Your task to perform on an android device: open device folders in google photos Image 0: 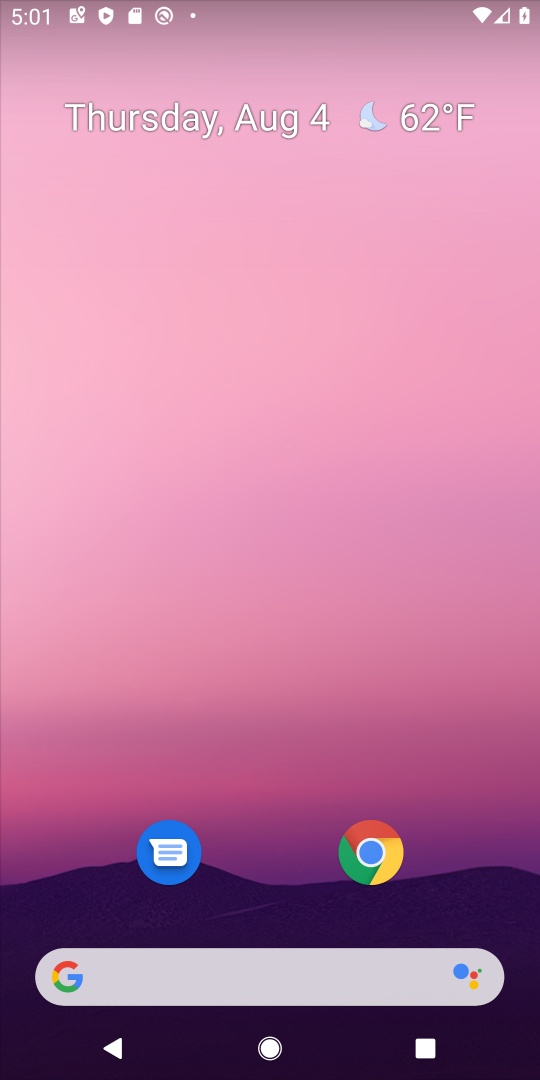
Step 0: drag from (281, 899) to (279, 164)
Your task to perform on an android device: open device folders in google photos Image 1: 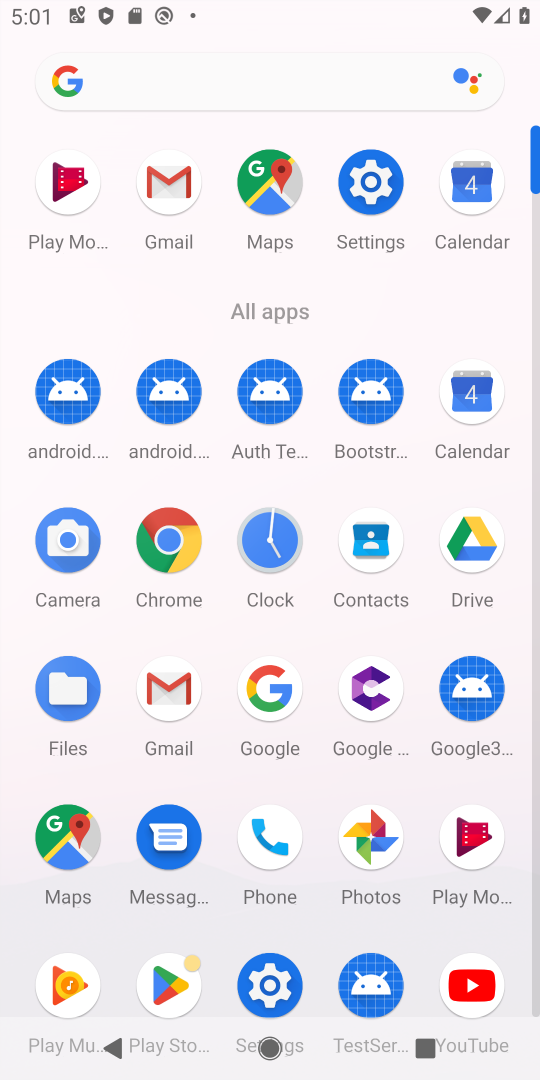
Step 1: click (349, 838)
Your task to perform on an android device: open device folders in google photos Image 2: 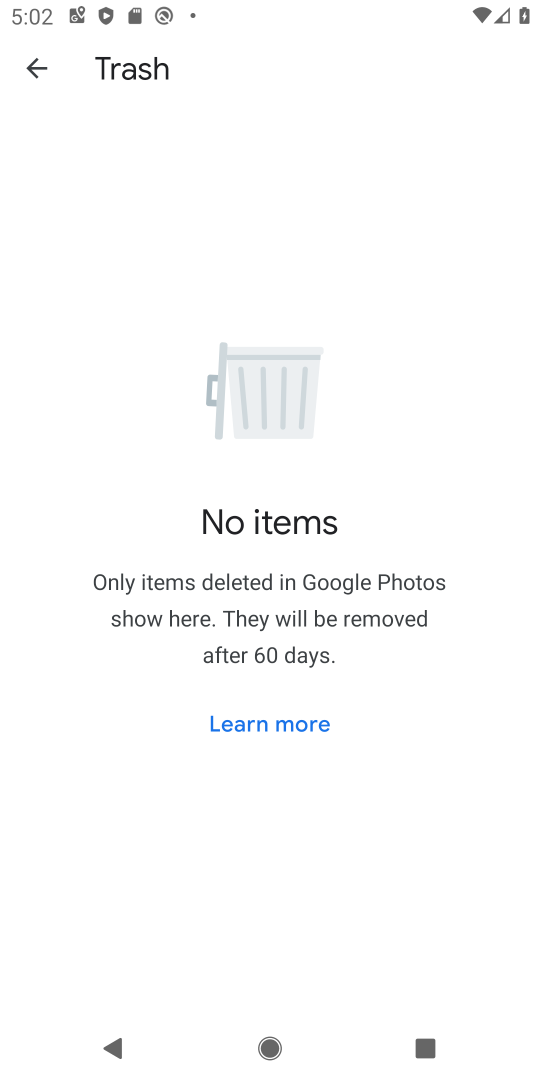
Step 2: click (45, 68)
Your task to perform on an android device: open device folders in google photos Image 3: 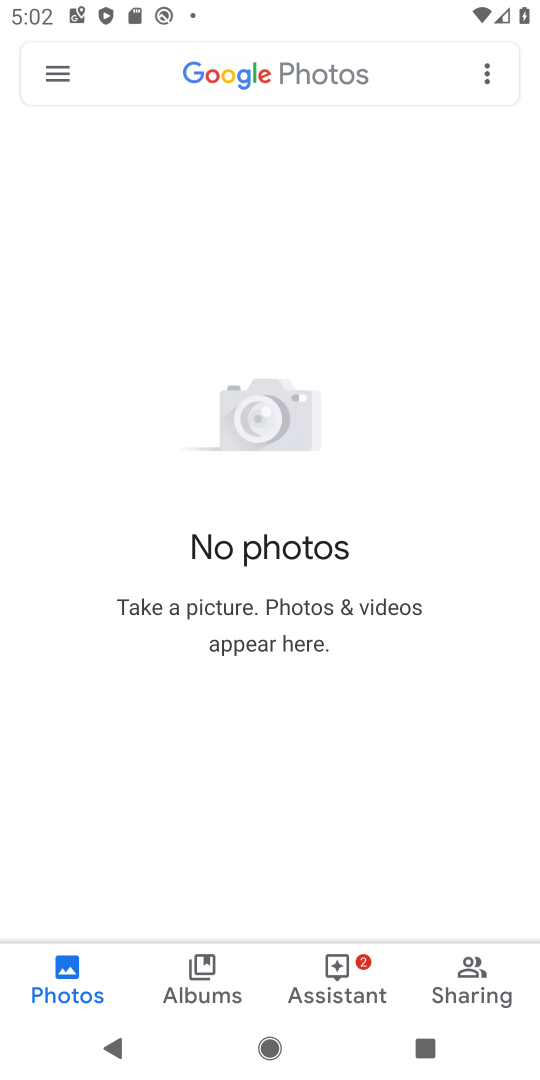
Step 3: click (45, 68)
Your task to perform on an android device: open device folders in google photos Image 4: 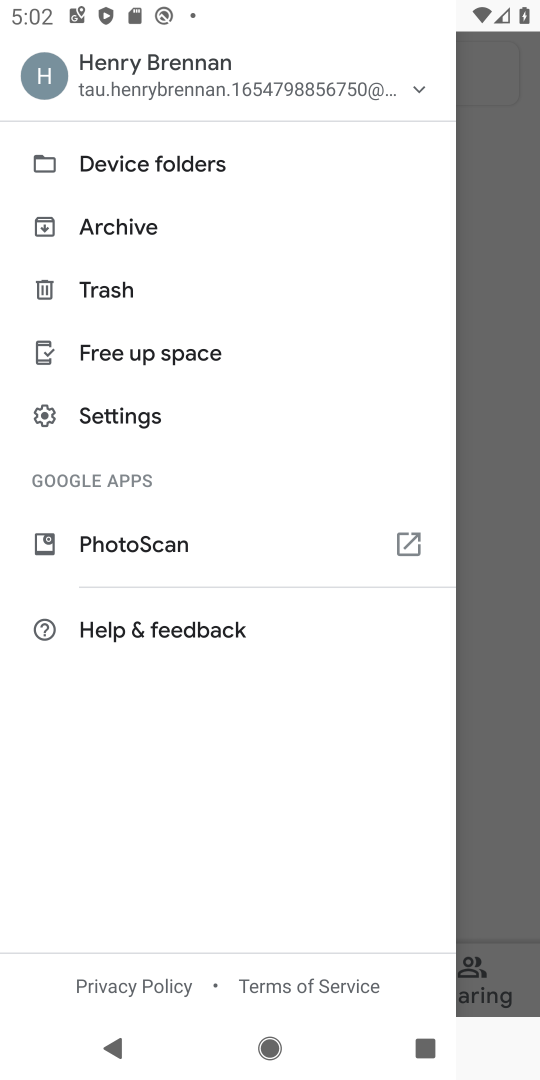
Step 4: click (133, 168)
Your task to perform on an android device: open device folders in google photos Image 5: 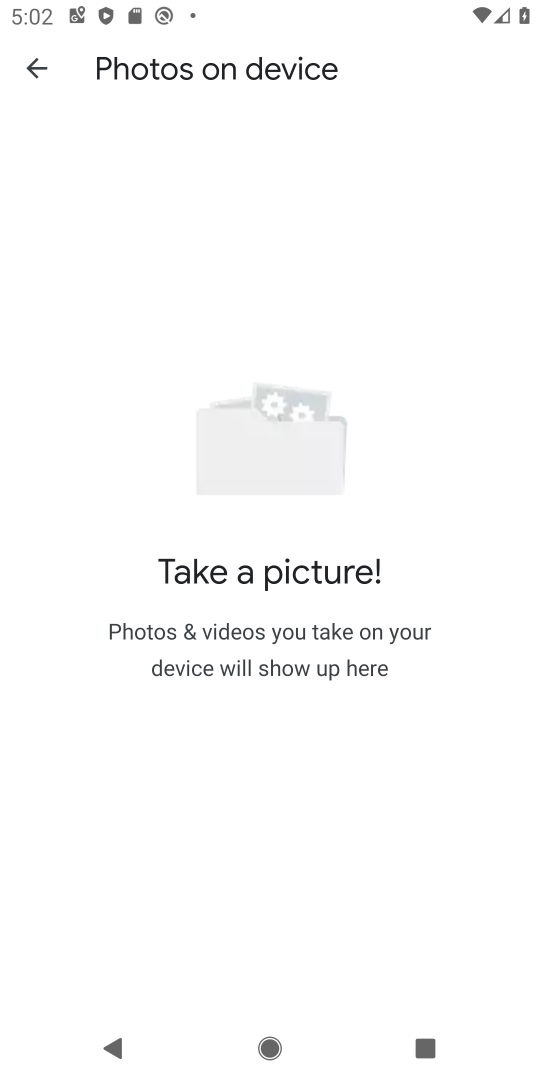
Step 5: task complete